Your task to perform on an android device: Open Google Maps Image 0: 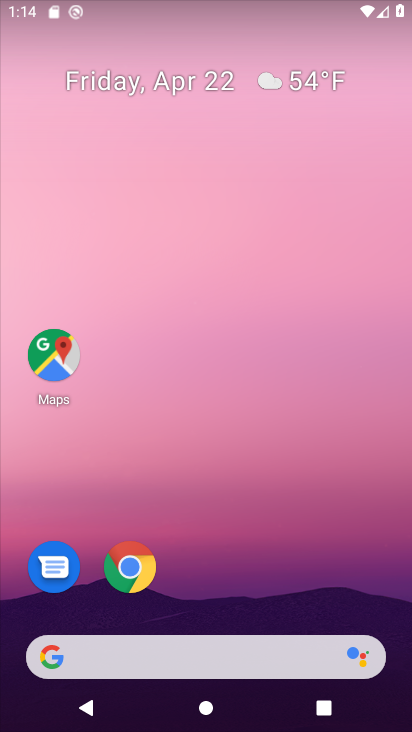
Step 0: drag from (254, 567) to (297, 70)
Your task to perform on an android device: Open Google Maps Image 1: 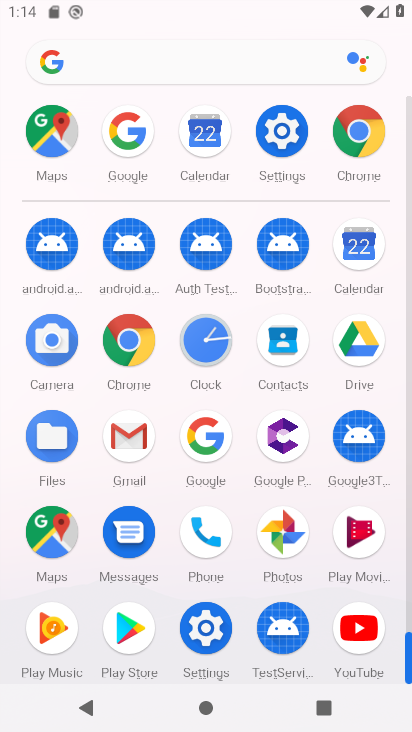
Step 1: click (73, 547)
Your task to perform on an android device: Open Google Maps Image 2: 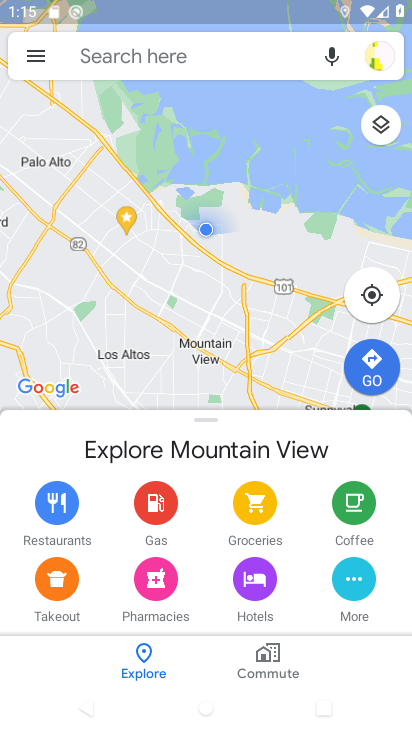
Step 2: task complete